Your task to perform on an android device: all mails in gmail Image 0: 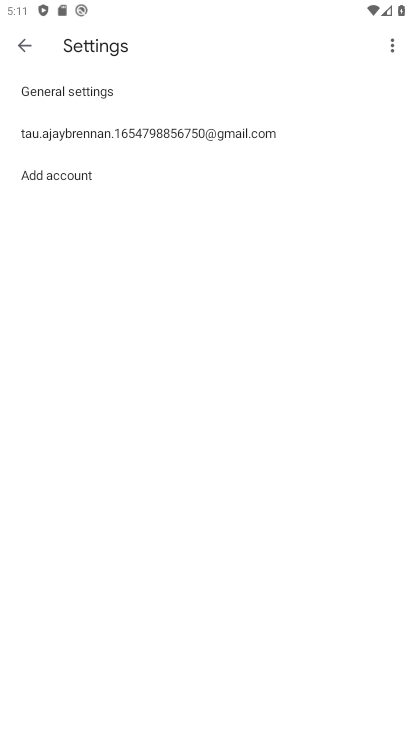
Step 0: press home button
Your task to perform on an android device: all mails in gmail Image 1: 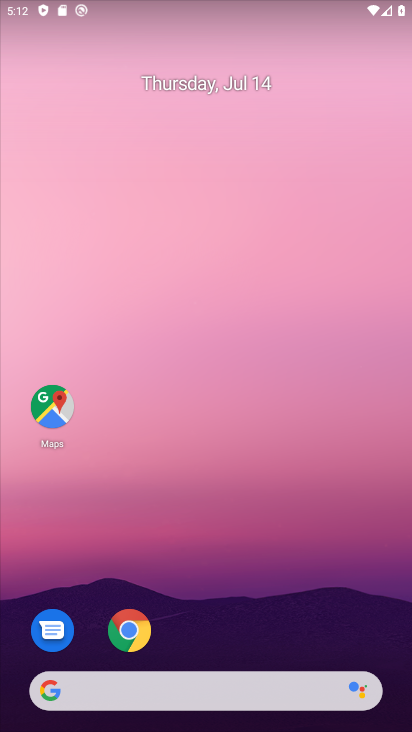
Step 1: drag from (238, 609) to (260, 39)
Your task to perform on an android device: all mails in gmail Image 2: 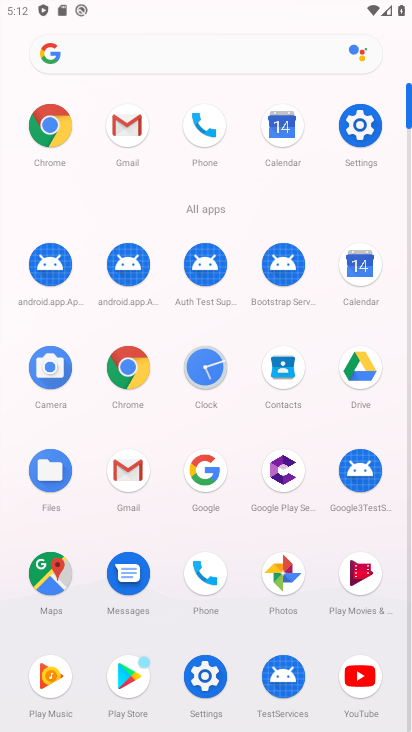
Step 2: click (116, 131)
Your task to perform on an android device: all mails in gmail Image 3: 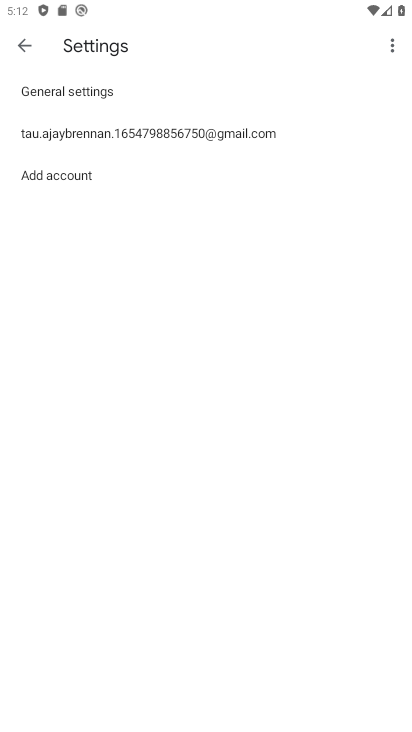
Step 3: press back button
Your task to perform on an android device: all mails in gmail Image 4: 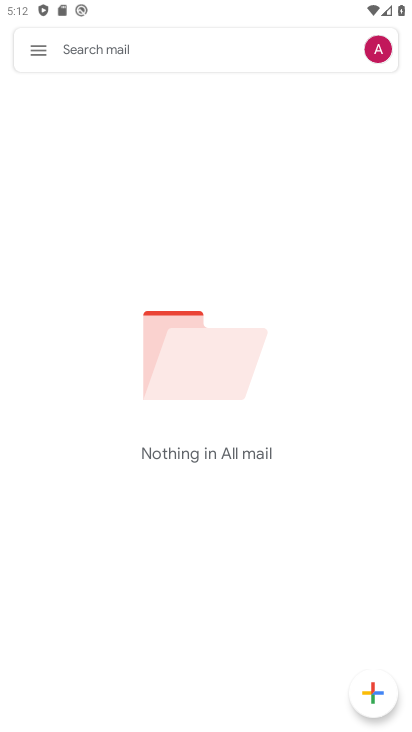
Step 4: click (43, 52)
Your task to perform on an android device: all mails in gmail Image 5: 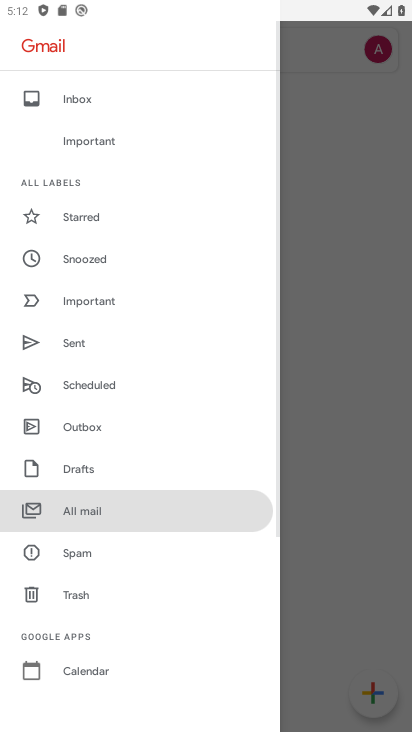
Step 5: click (111, 517)
Your task to perform on an android device: all mails in gmail Image 6: 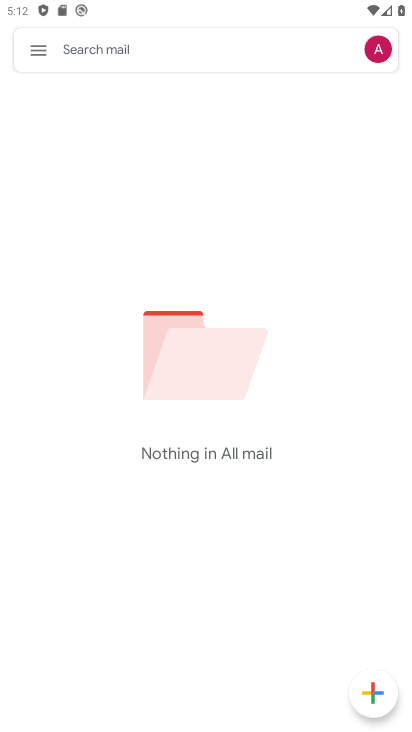
Step 6: task complete